Your task to perform on an android device: clear history in the chrome app Image 0: 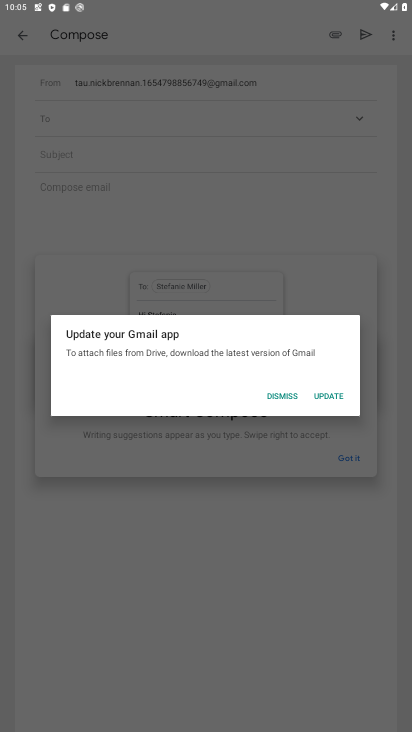
Step 0: press home button
Your task to perform on an android device: clear history in the chrome app Image 1: 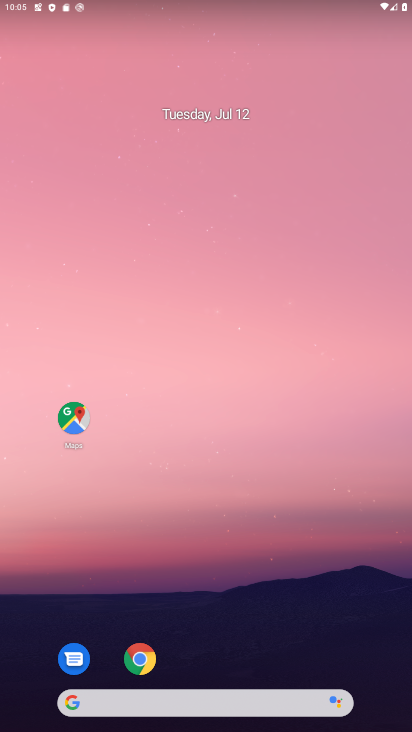
Step 1: click (141, 655)
Your task to perform on an android device: clear history in the chrome app Image 2: 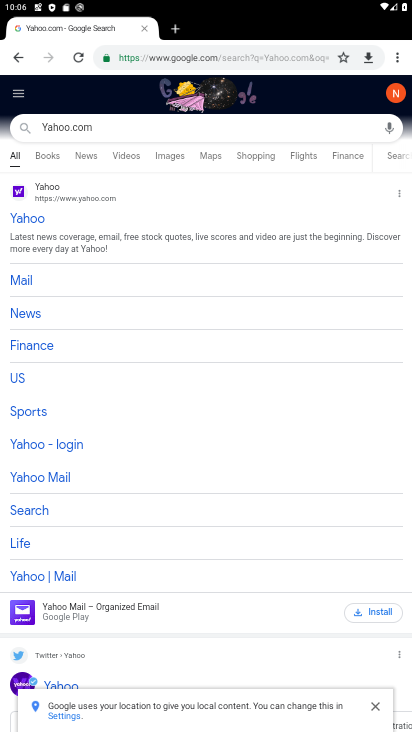
Step 2: click (400, 54)
Your task to perform on an android device: clear history in the chrome app Image 3: 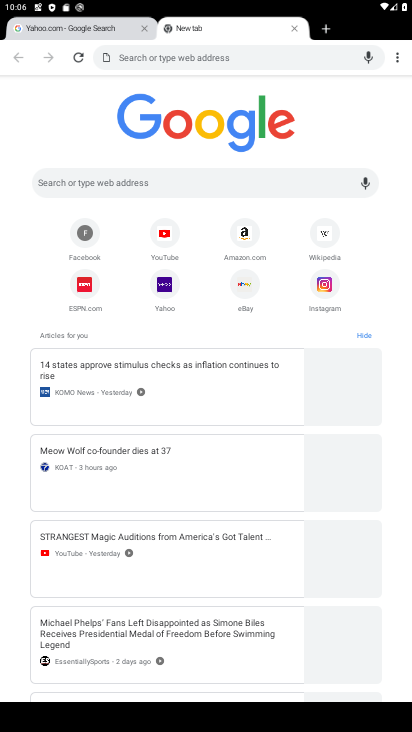
Step 3: click (399, 54)
Your task to perform on an android device: clear history in the chrome app Image 4: 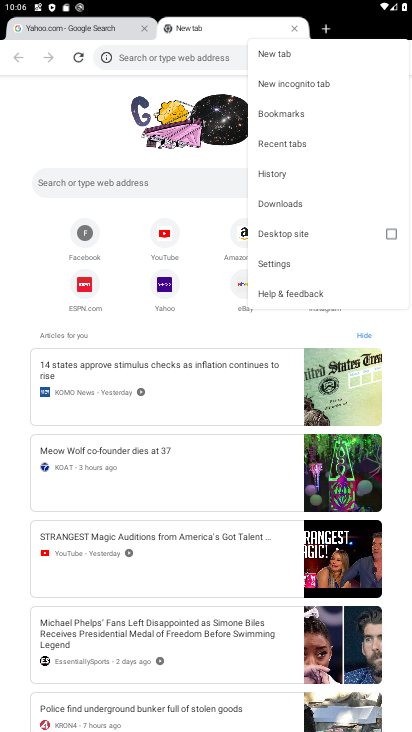
Step 4: click (270, 171)
Your task to perform on an android device: clear history in the chrome app Image 5: 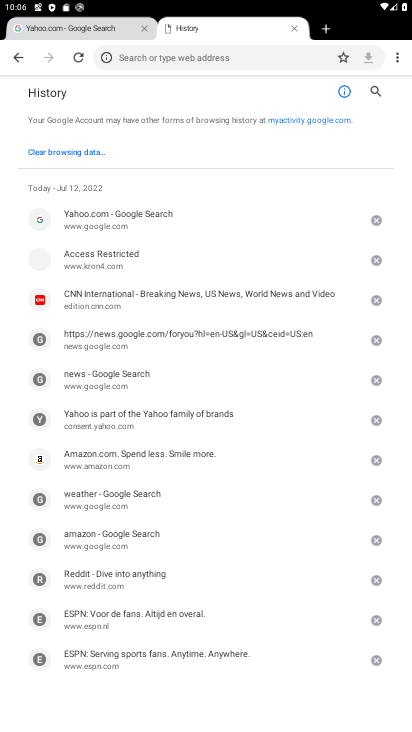
Step 5: click (80, 147)
Your task to perform on an android device: clear history in the chrome app Image 6: 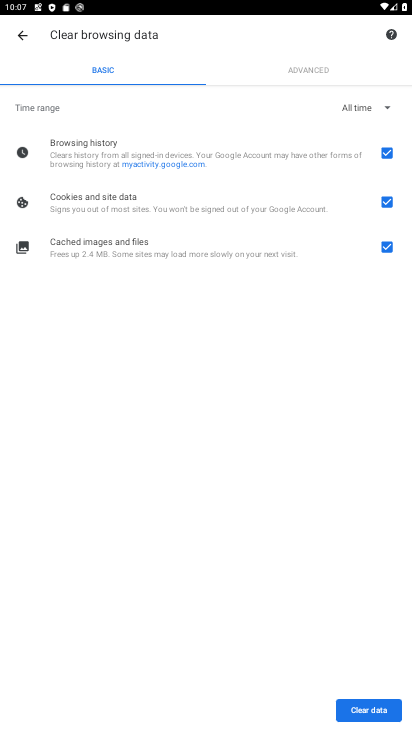
Step 6: click (354, 708)
Your task to perform on an android device: clear history in the chrome app Image 7: 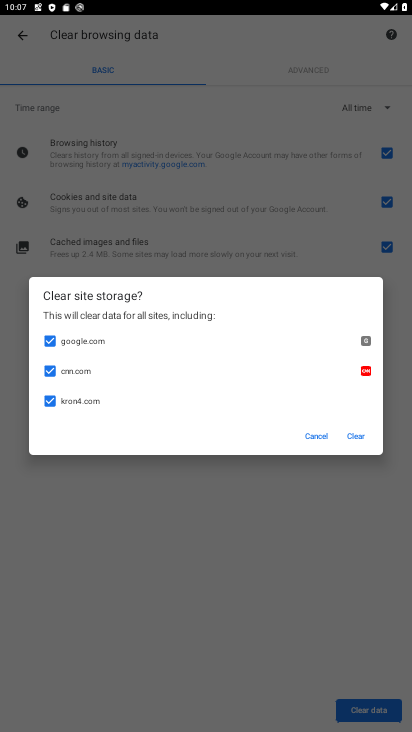
Step 7: click (350, 434)
Your task to perform on an android device: clear history in the chrome app Image 8: 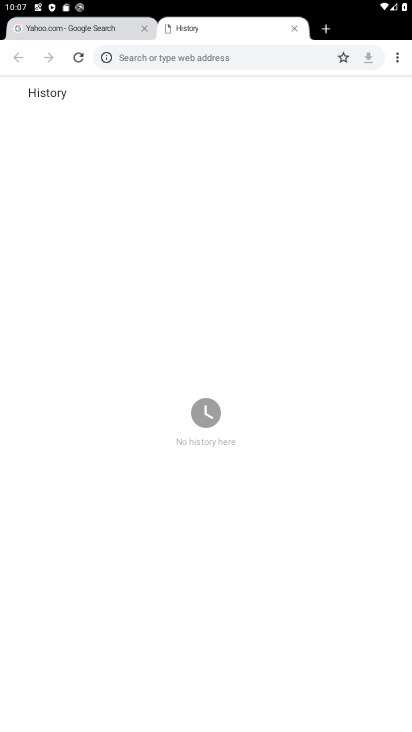
Step 8: task complete